Your task to perform on an android device: turn off picture-in-picture Image 0: 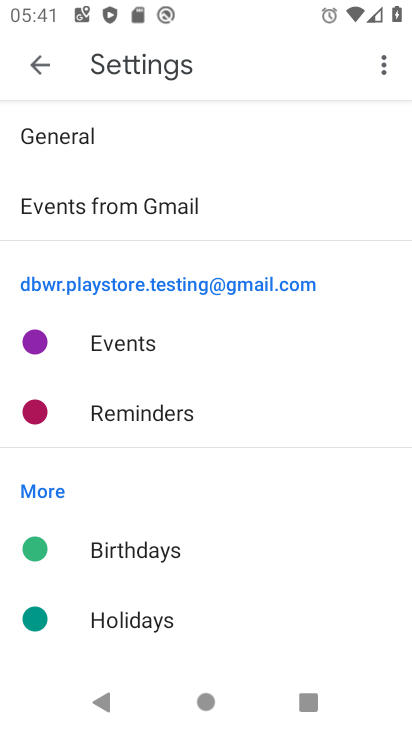
Step 0: press home button
Your task to perform on an android device: turn off picture-in-picture Image 1: 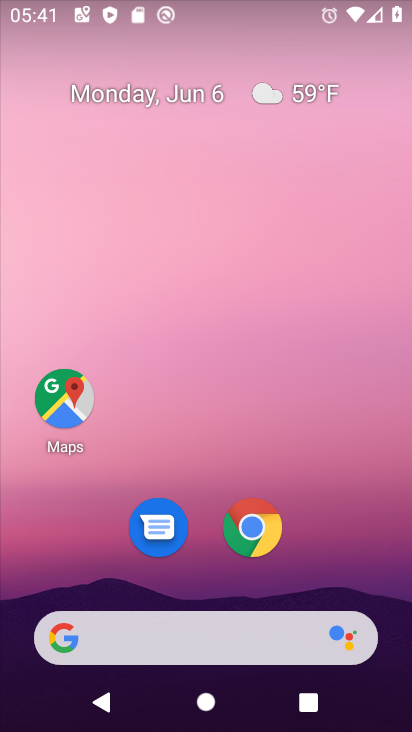
Step 1: drag from (388, 697) to (354, 0)
Your task to perform on an android device: turn off picture-in-picture Image 2: 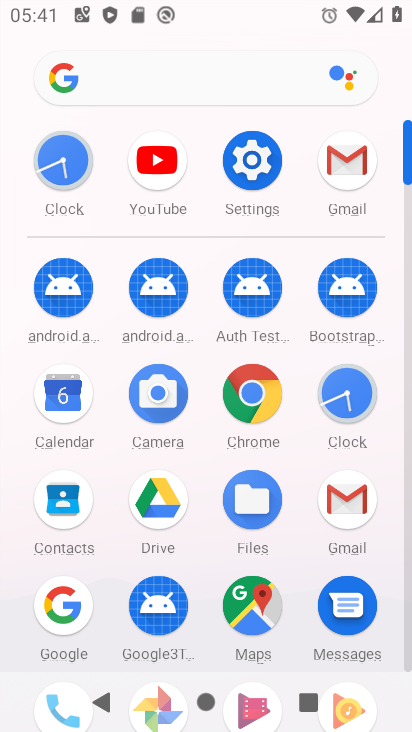
Step 2: click (253, 397)
Your task to perform on an android device: turn off picture-in-picture Image 3: 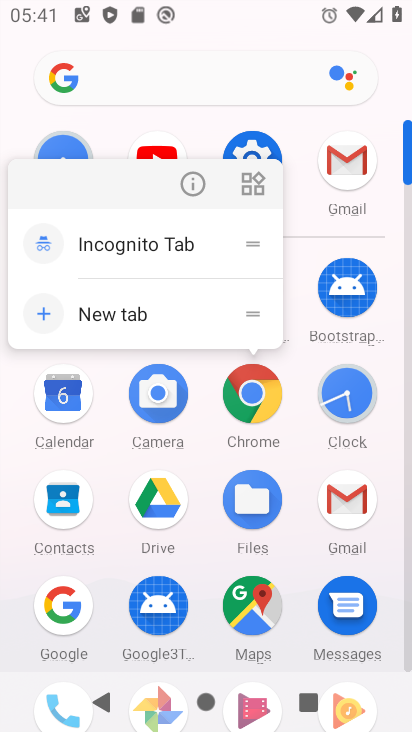
Step 3: click (193, 182)
Your task to perform on an android device: turn off picture-in-picture Image 4: 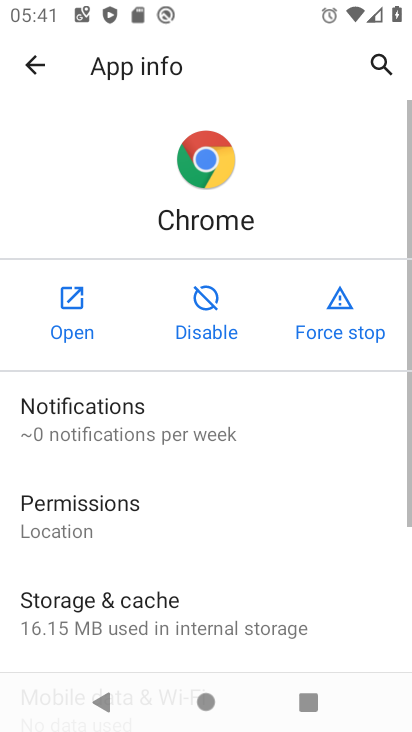
Step 4: drag from (267, 611) to (265, 82)
Your task to perform on an android device: turn off picture-in-picture Image 5: 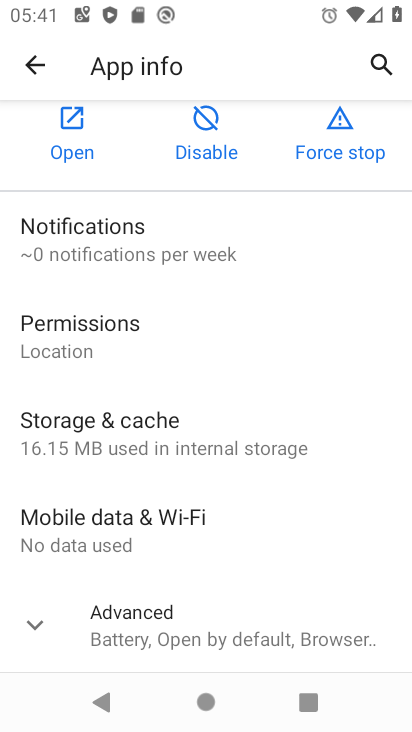
Step 5: click (50, 626)
Your task to perform on an android device: turn off picture-in-picture Image 6: 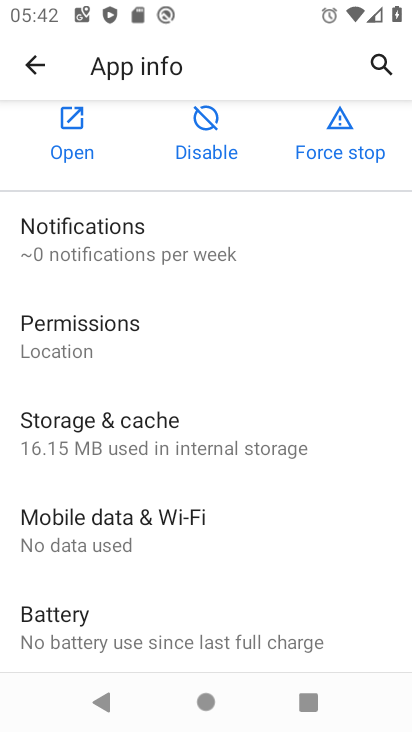
Step 6: drag from (200, 620) to (220, 220)
Your task to perform on an android device: turn off picture-in-picture Image 7: 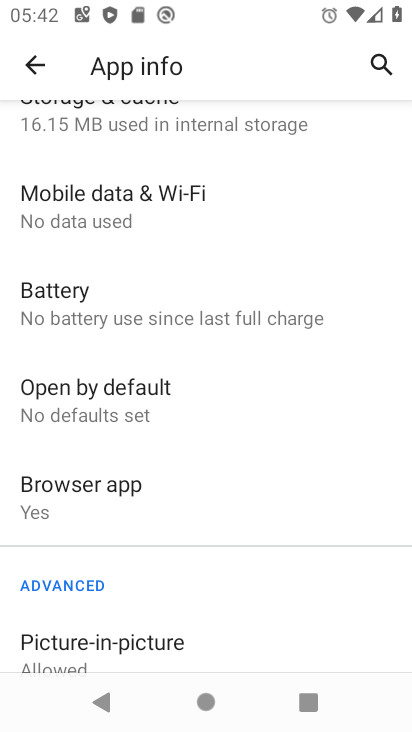
Step 7: click (41, 655)
Your task to perform on an android device: turn off picture-in-picture Image 8: 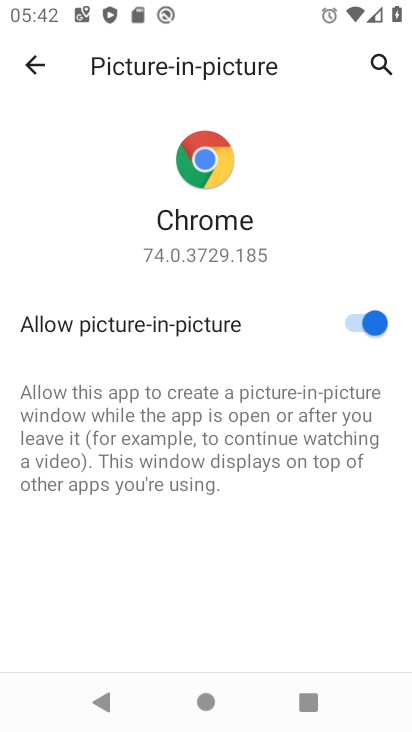
Step 8: click (361, 329)
Your task to perform on an android device: turn off picture-in-picture Image 9: 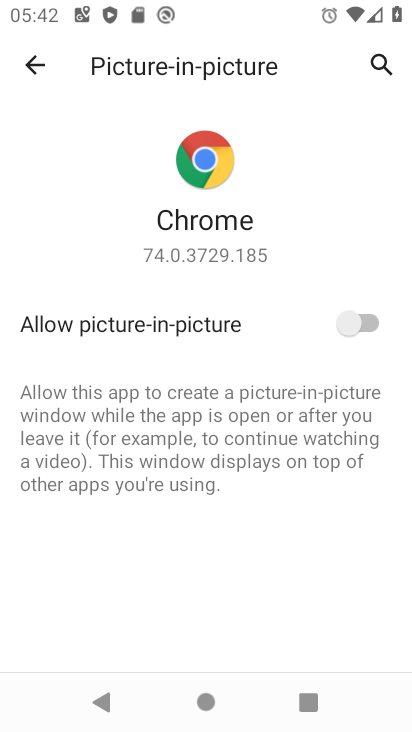
Step 9: task complete